Your task to perform on an android device: empty trash in the gmail app Image 0: 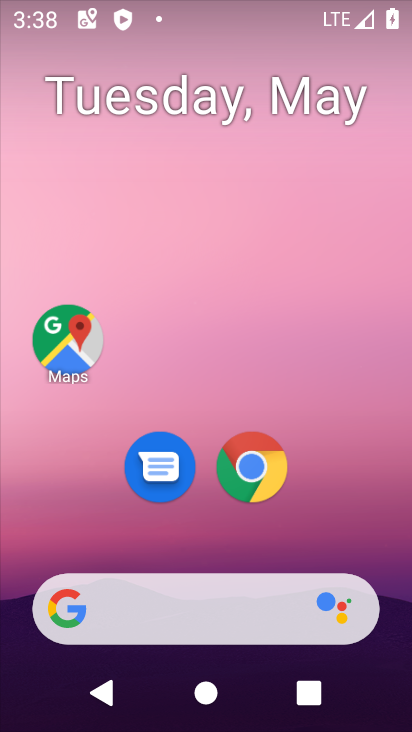
Step 0: drag from (353, 510) to (286, 63)
Your task to perform on an android device: empty trash in the gmail app Image 1: 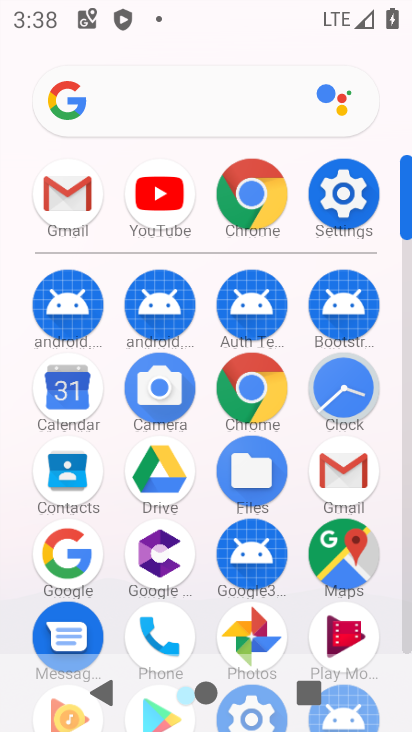
Step 1: click (82, 200)
Your task to perform on an android device: empty trash in the gmail app Image 2: 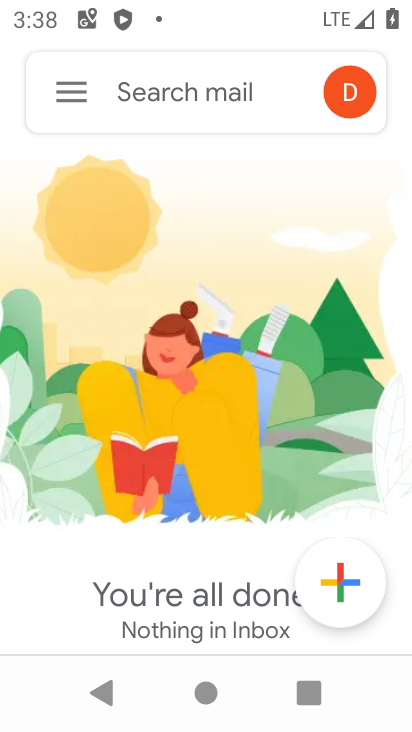
Step 2: click (70, 93)
Your task to perform on an android device: empty trash in the gmail app Image 3: 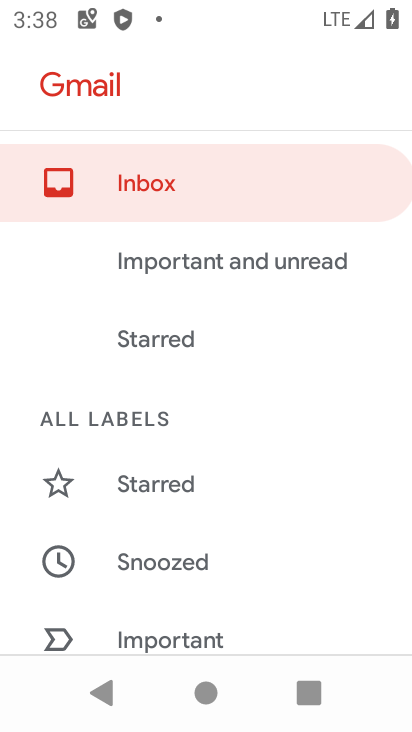
Step 3: drag from (311, 598) to (283, 109)
Your task to perform on an android device: empty trash in the gmail app Image 4: 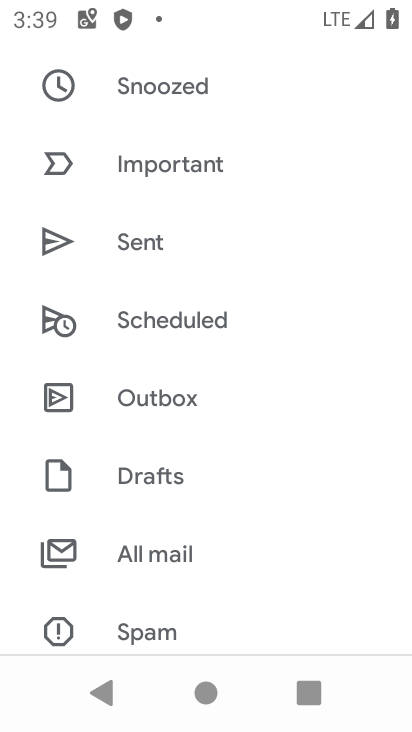
Step 4: drag from (321, 619) to (310, 177)
Your task to perform on an android device: empty trash in the gmail app Image 5: 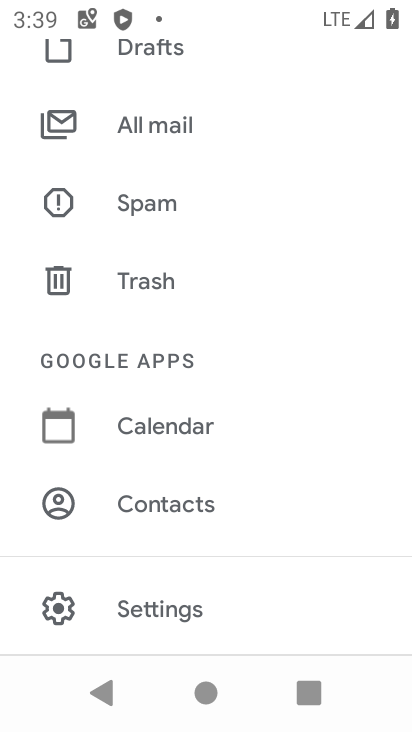
Step 5: click (136, 278)
Your task to perform on an android device: empty trash in the gmail app Image 6: 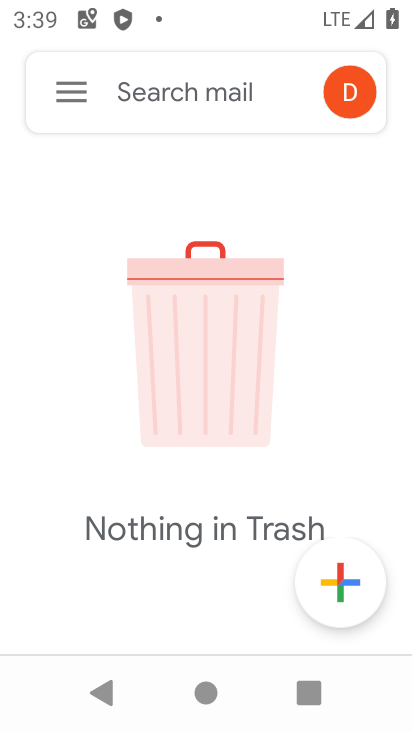
Step 6: task complete